Your task to perform on an android device: delete a single message in the gmail app Image 0: 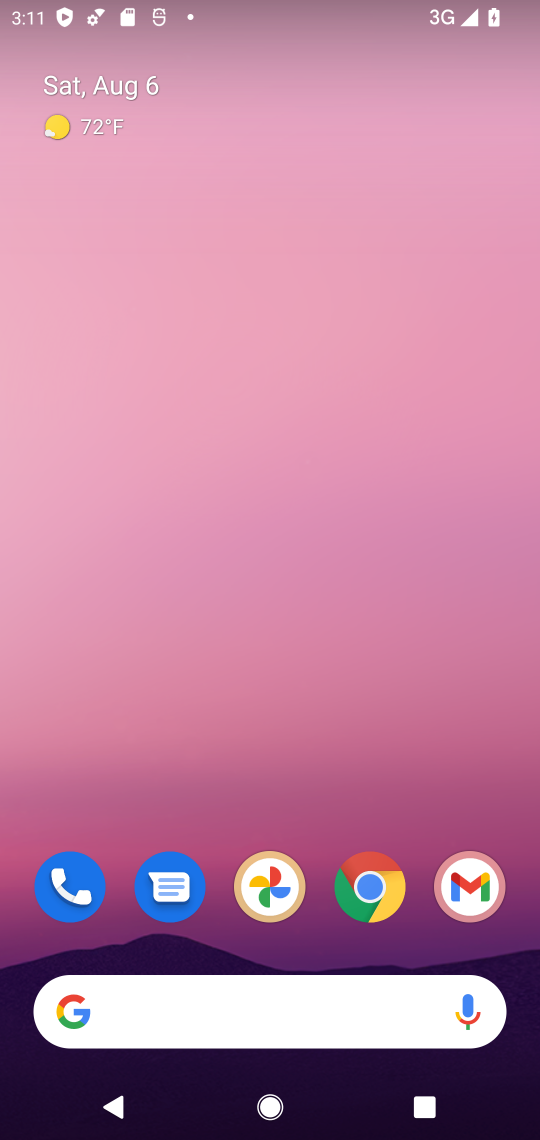
Step 0: press home button
Your task to perform on an android device: delete a single message in the gmail app Image 1: 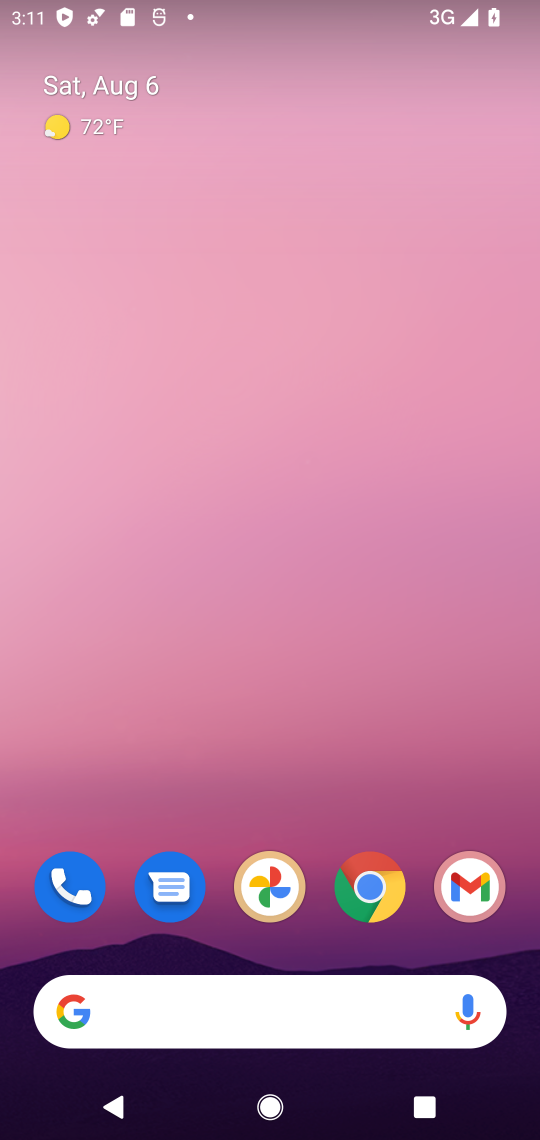
Step 1: drag from (412, 795) to (418, 145)
Your task to perform on an android device: delete a single message in the gmail app Image 2: 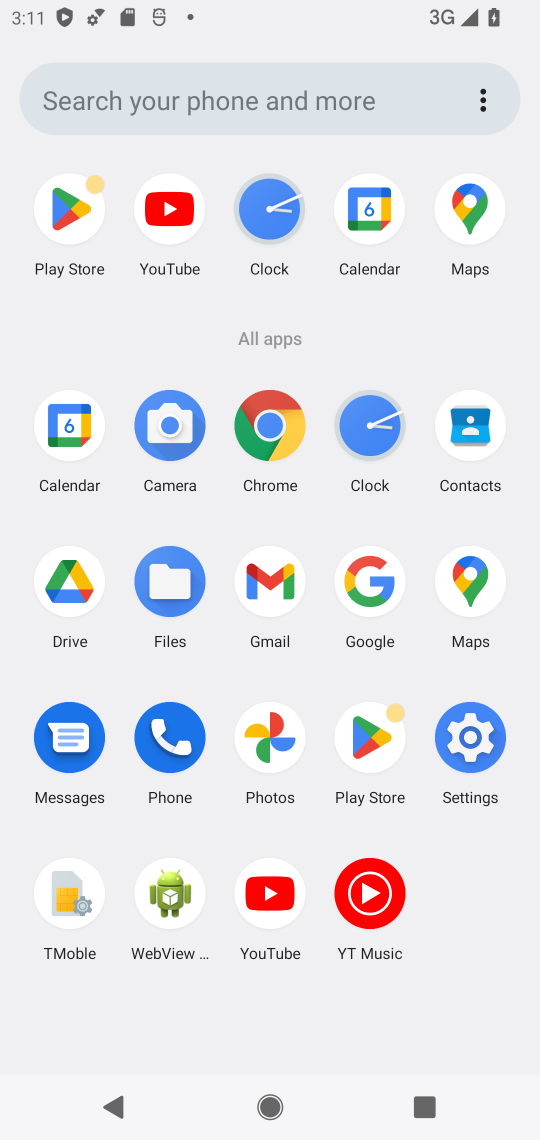
Step 2: click (273, 573)
Your task to perform on an android device: delete a single message in the gmail app Image 3: 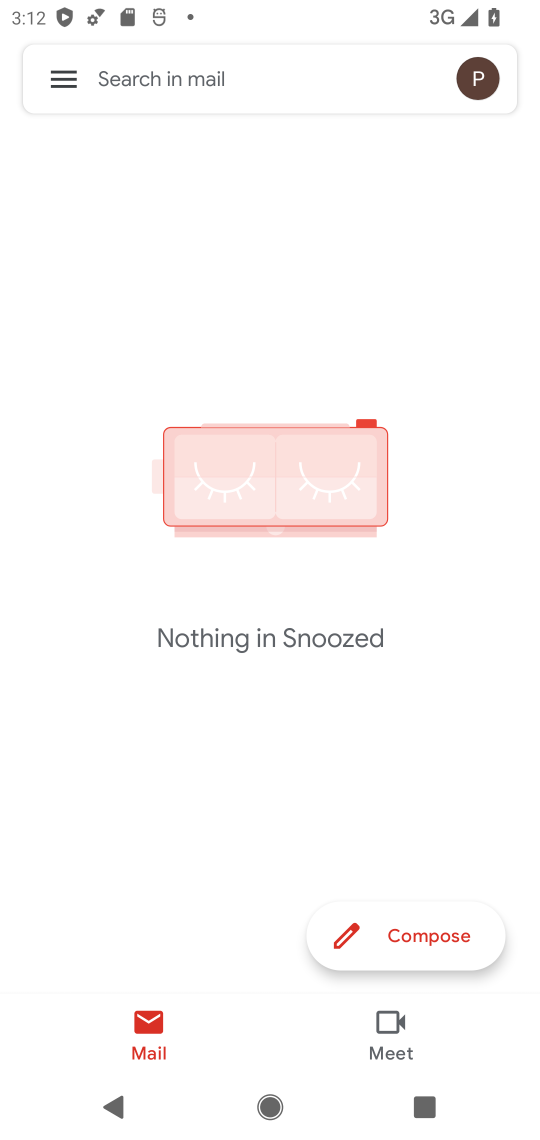
Step 3: click (53, 85)
Your task to perform on an android device: delete a single message in the gmail app Image 4: 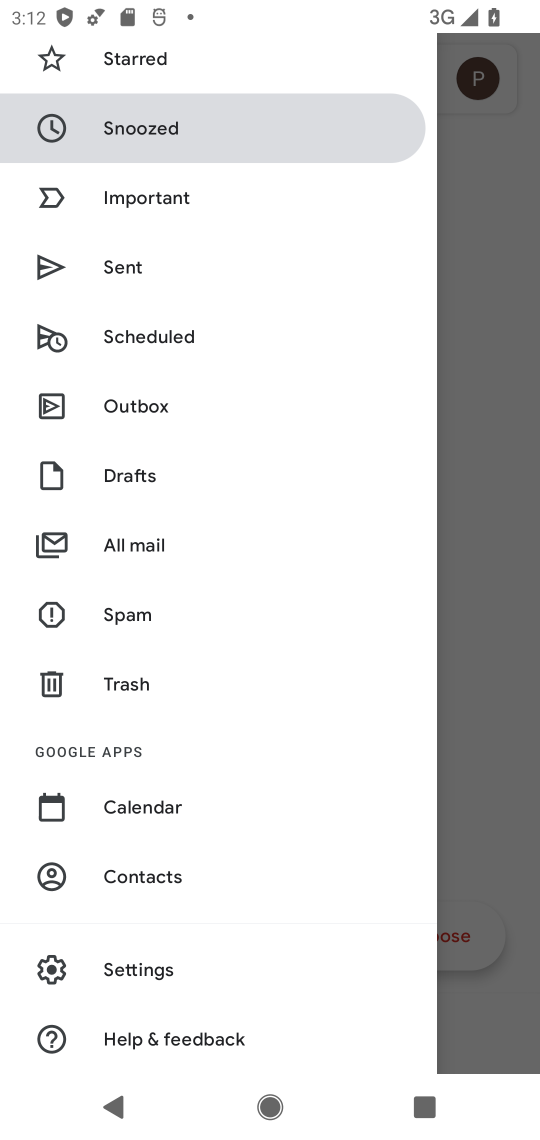
Step 4: click (188, 552)
Your task to perform on an android device: delete a single message in the gmail app Image 5: 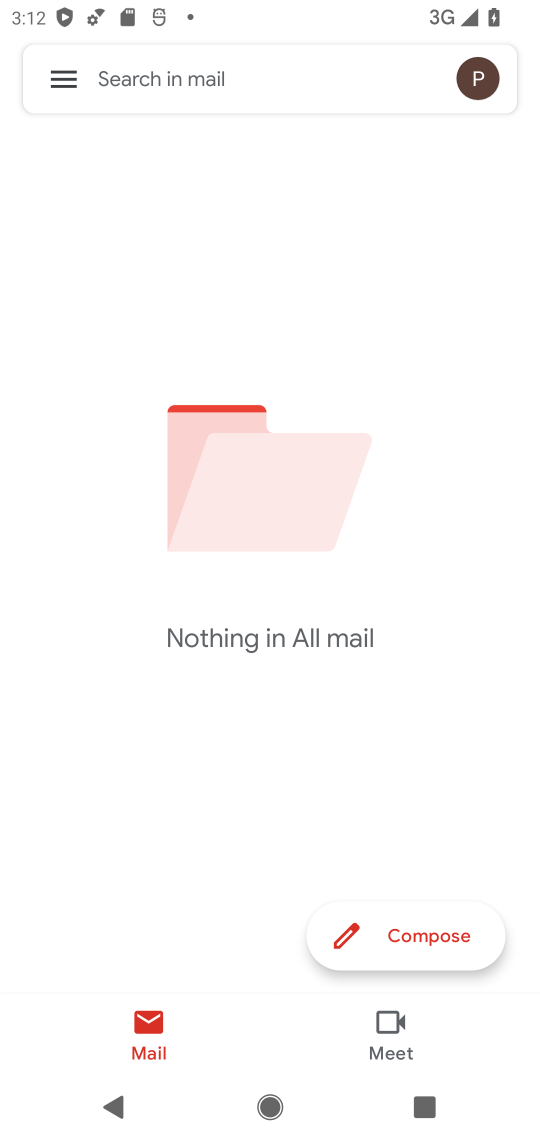
Step 5: task complete